Your task to perform on an android device: Go to display settings Image 0: 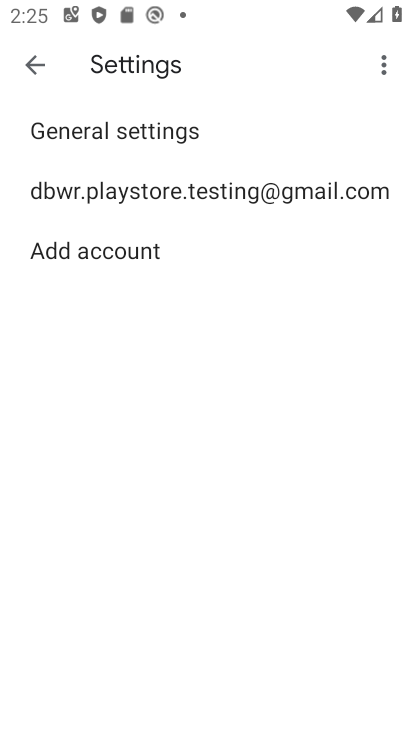
Step 0: drag from (343, 594) to (200, 220)
Your task to perform on an android device: Go to display settings Image 1: 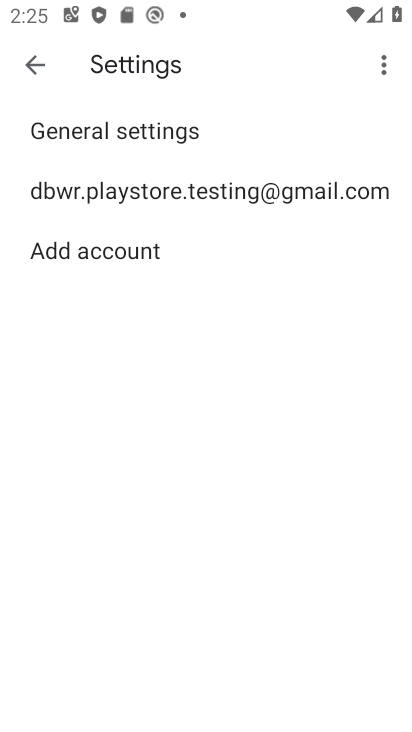
Step 1: click (29, 67)
Your task to perform on an android device: Go to display settings Image 2: 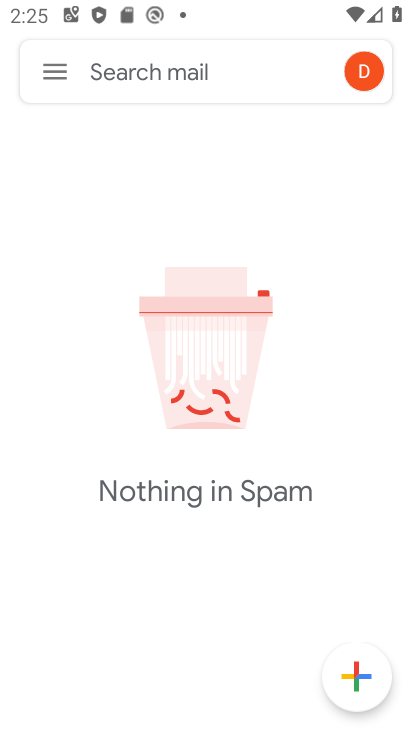
Step 2: press back button
Your task to perform on an android device: Go to display settings Image 3: 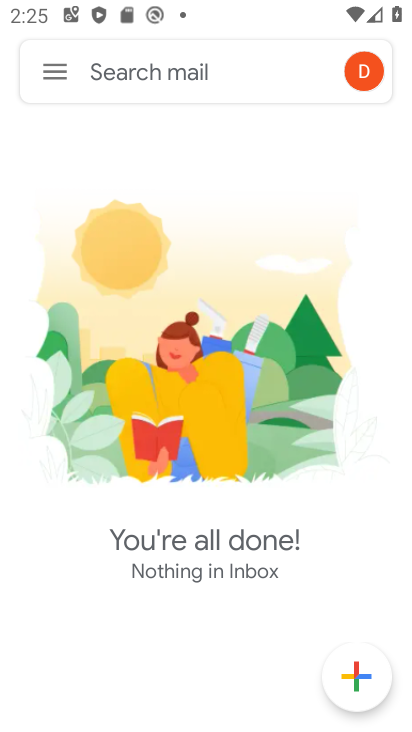
Step 3: drag from (316, 586) to (196, 164)
Your task to perform on an android device: Go to display settings Image 4: 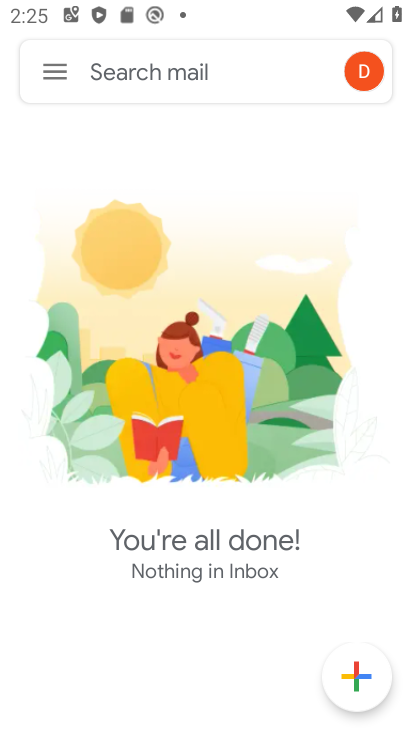
Step 4: press back button
Your task to perform on an android device: Go to display settings Image 5: 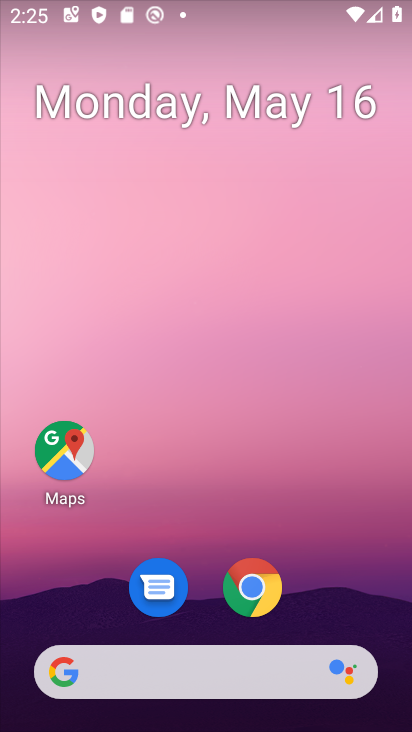
Step 5: drag from (298, 462) to (160, 44)
Your task to perform on an android device: Go to display settings Image 6: 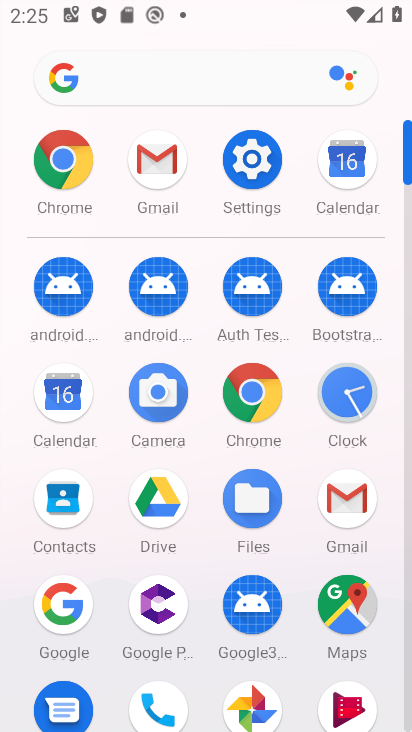
Step 6: click (250, 154)
Your task to perform on an android device: Go to display settings Image 7: 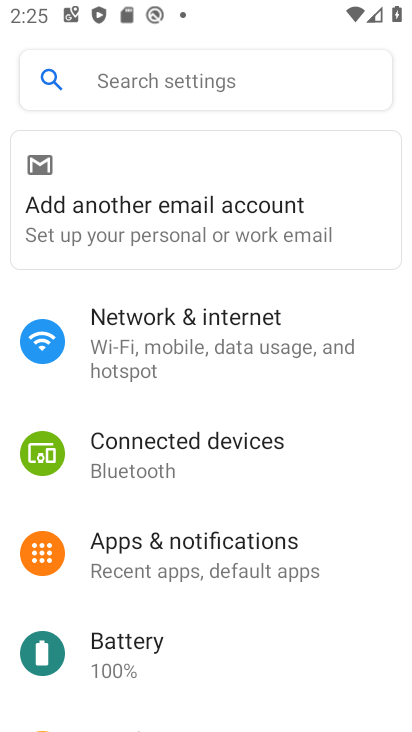
Step 7: drag from (214, 582) to (173, 272)
Your task to perform on an android device: Go to display settings Image 8: 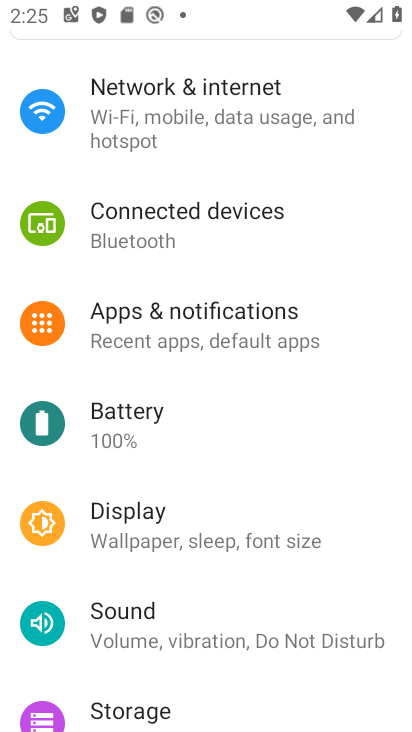
Step 8: drag from (199, 481) to (174, 207)
Your task to perform on an android device: Go to display settings Image 9: 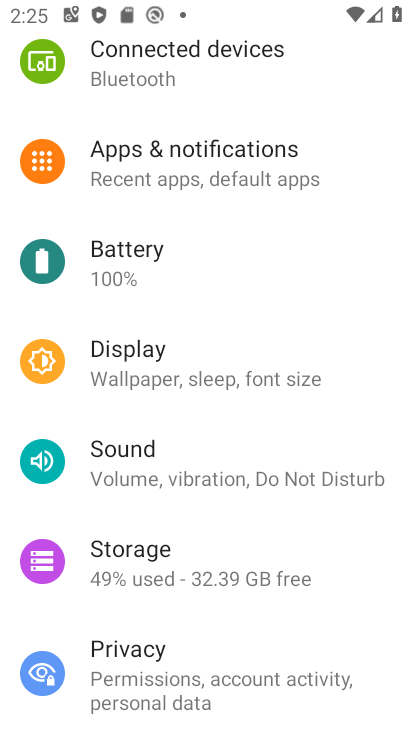
Step 9: click (132, 357)
Your task to perform on an android device: Go to display settings Image 10: 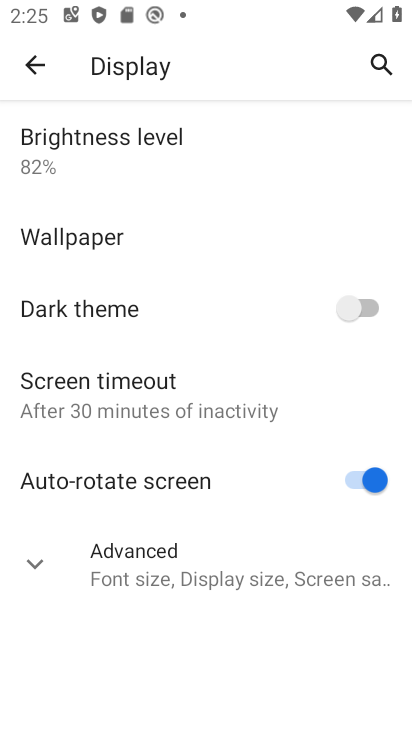
Step 10: click (172, 567)
Your task to perform on an android device: Go to display settings Image 11: 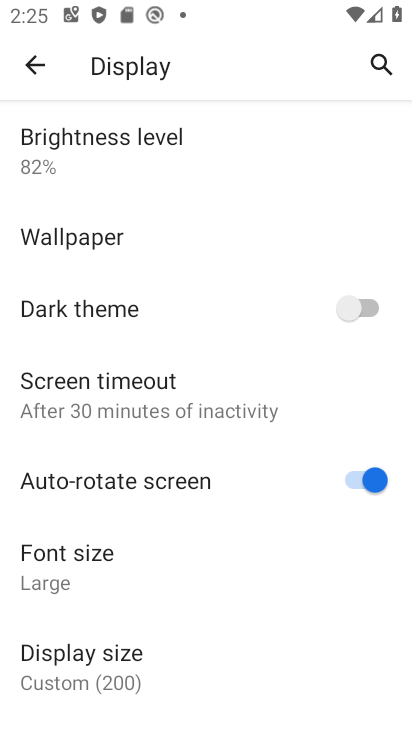
Step 11: click (83, 655)
Your task to perform on an android device: Go to display settings Image 12: 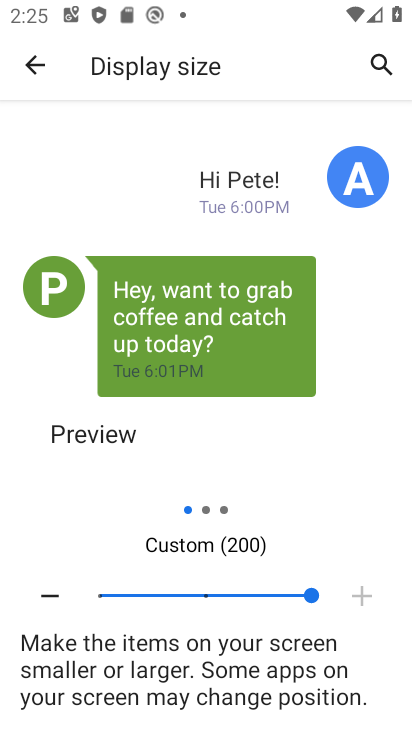
Step 12: task complete